Your task to perform on an android device: Play the last video I watched on Youtube Image 0: 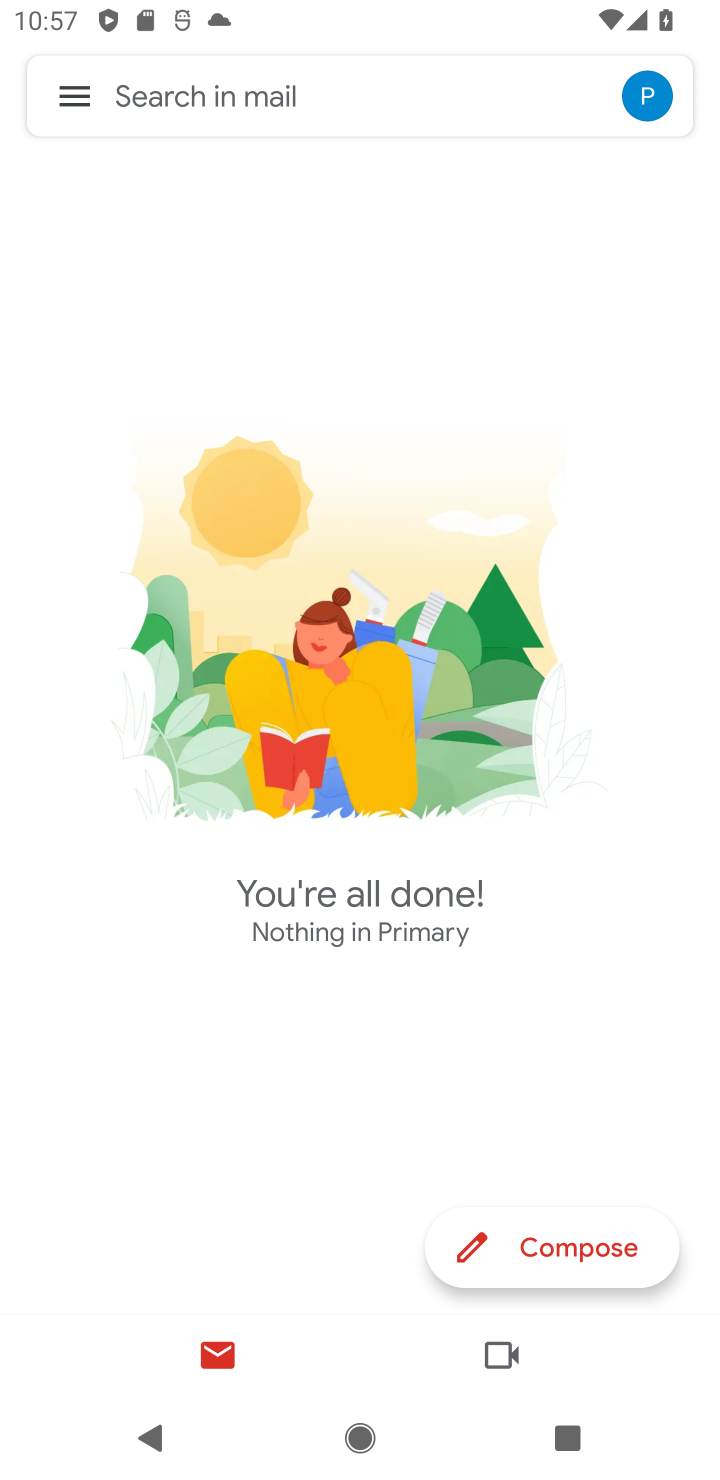
Step 0: press home button
Your task to perform on an android device: Play the last video I watched on Youtube Image 1: 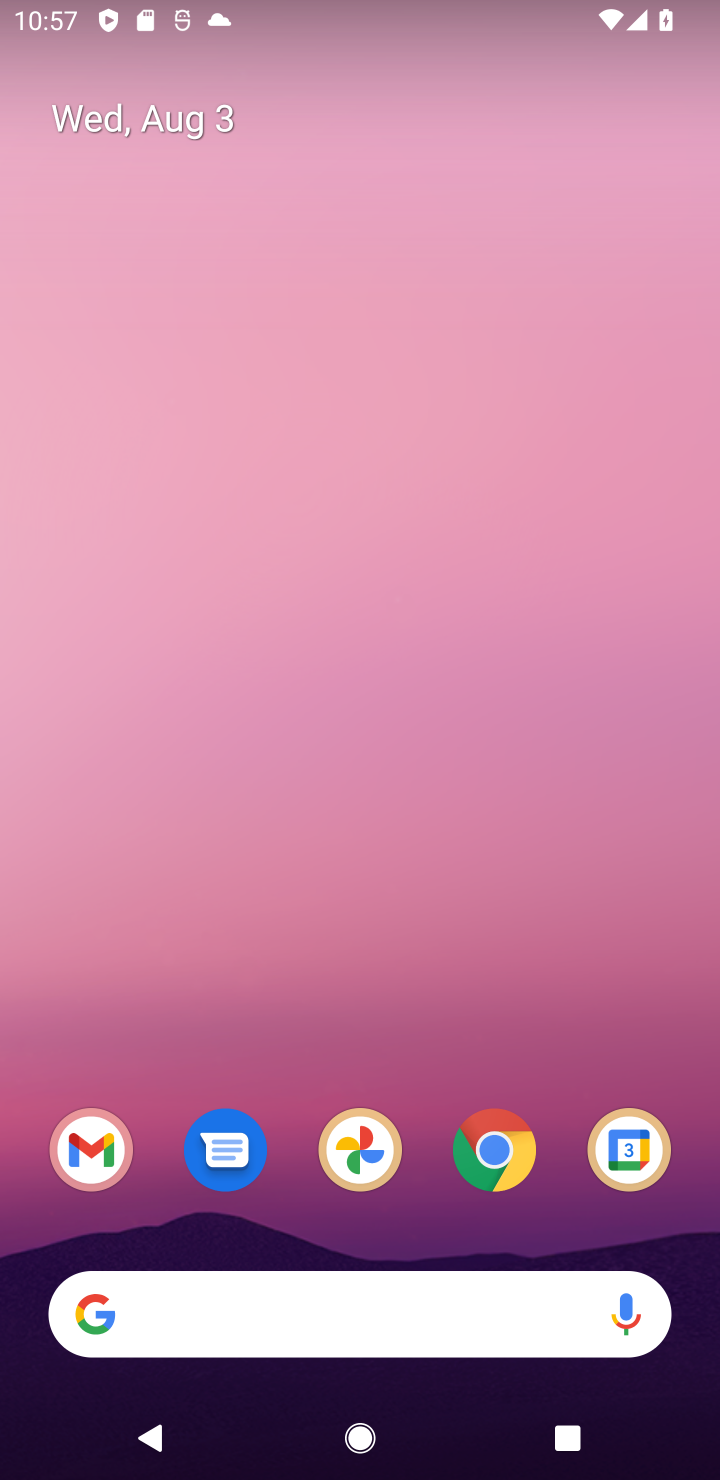
Step 1: drag from (456, 1017) to (491, 192)
Your task to perform on an android device: Play the last video I watched on Youtube Image 2: 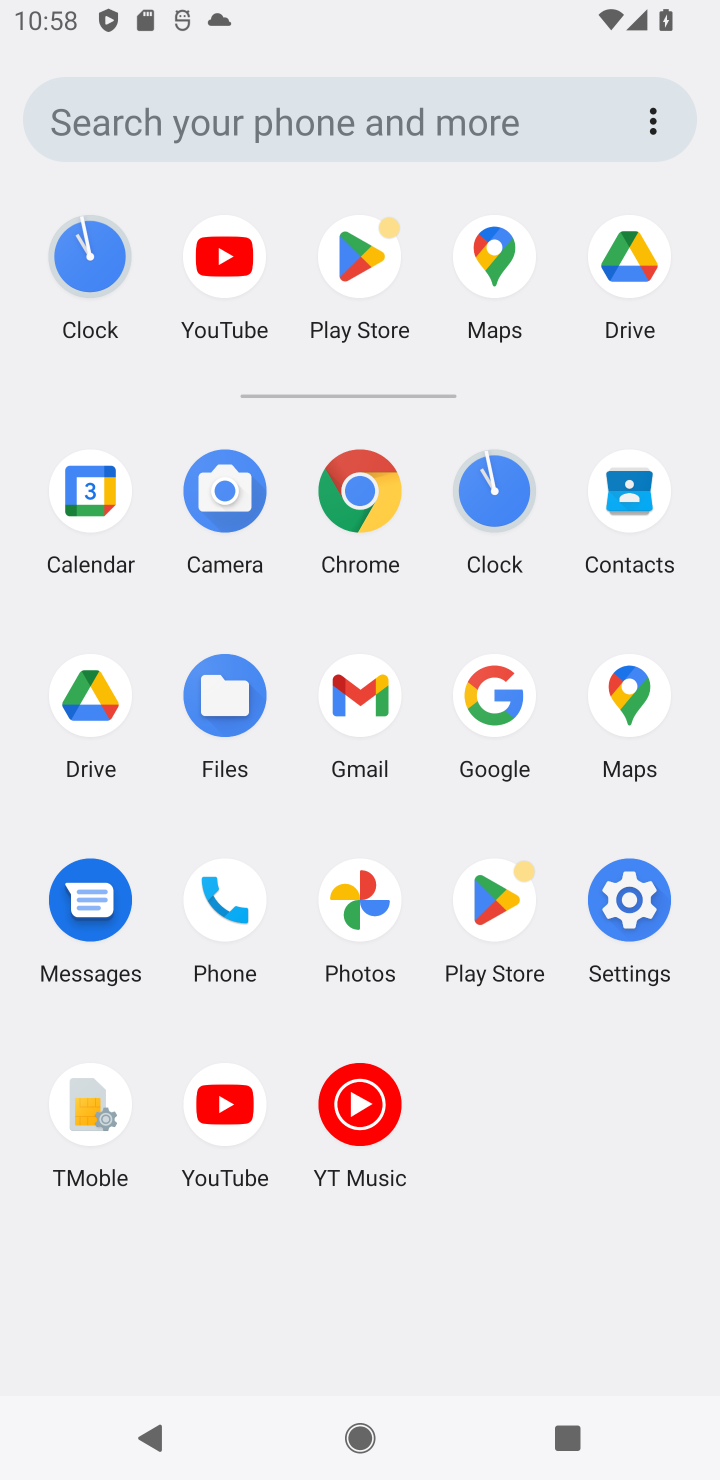
Step 2: click (223, 1116)
Your task to perform on an android device: Play the last video I watched on Youtube Image 3: 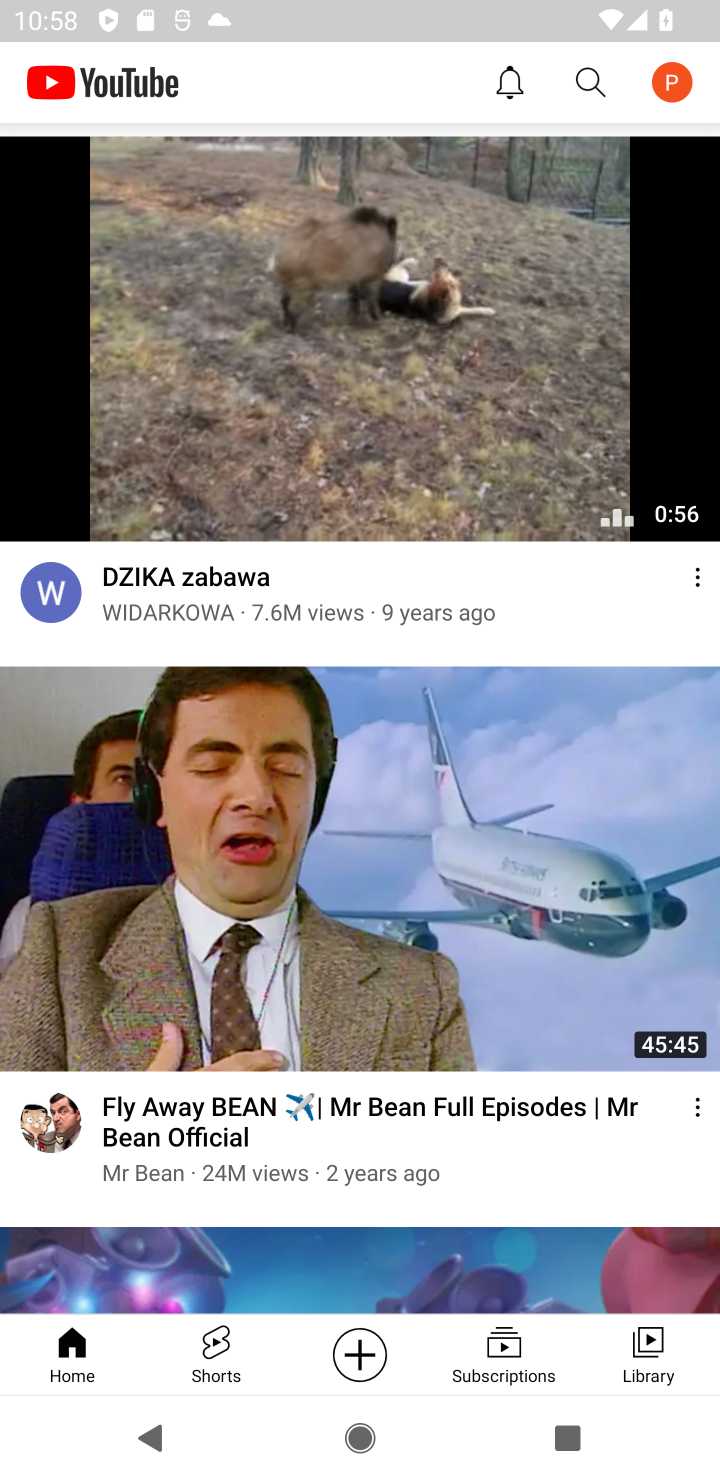
Step 3: click (661, 1357)
Your task to perform on an android device: Play the last video I watched on Youtube Image 4: 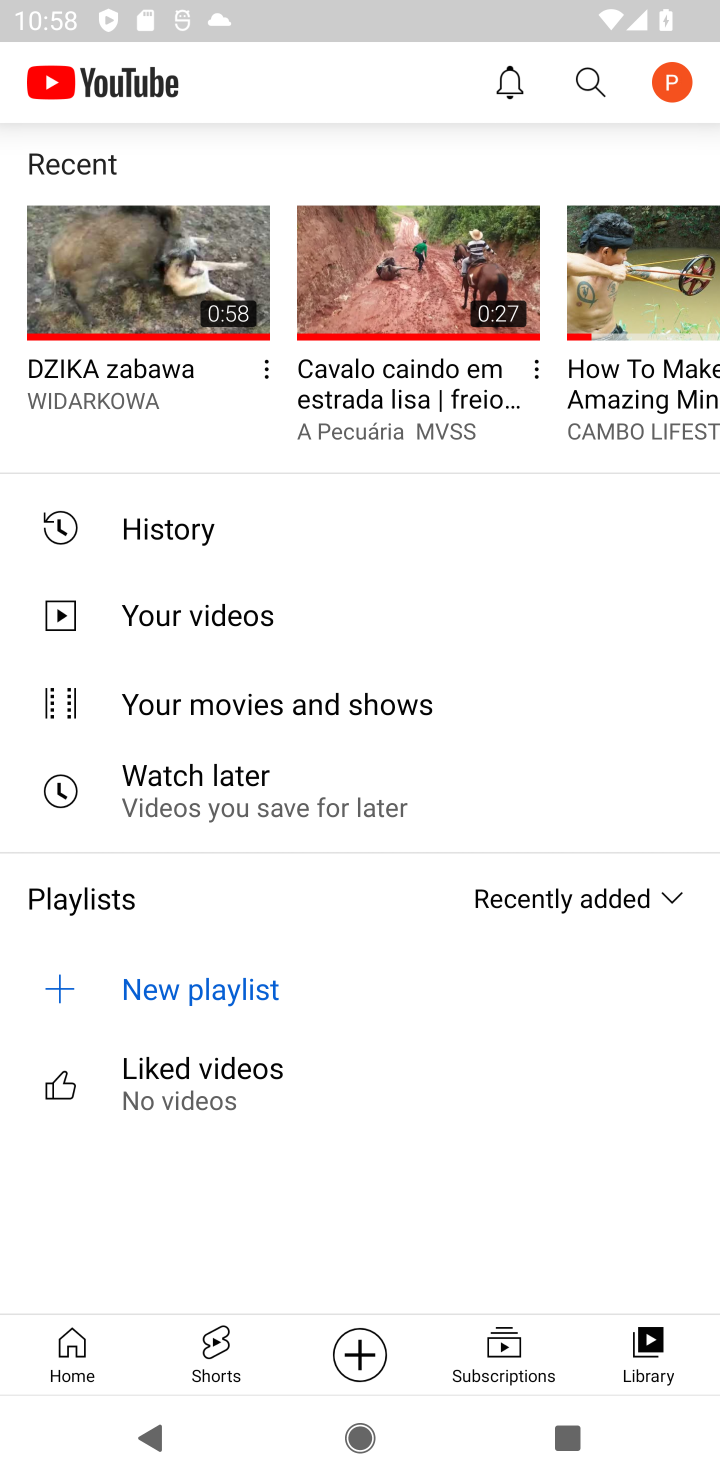
Step 4: click (133, 270)
Your task to perform on an android device: Play the last video I watched on Youtube Image 5: 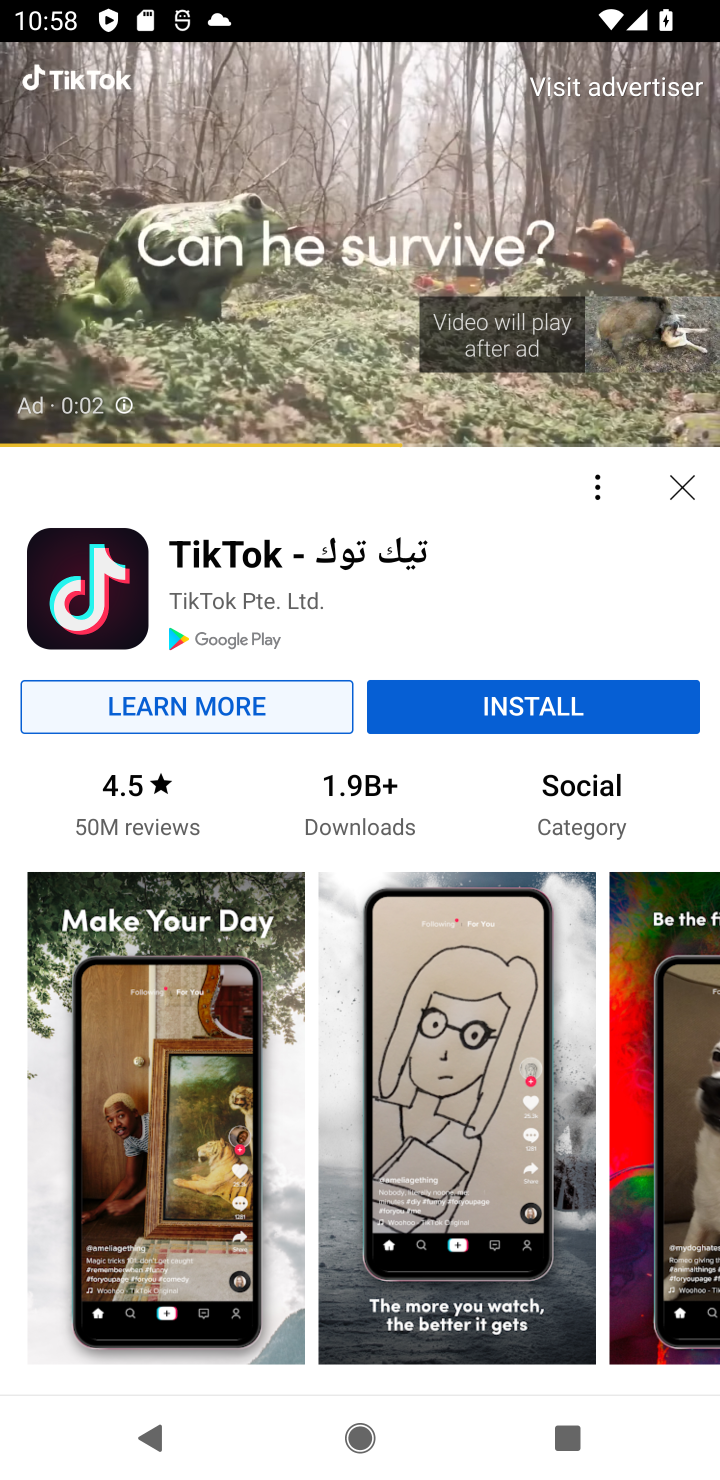
Step 5: task complete